Your task to perform on an android device: Show me popular videos on Youtube Image 0: 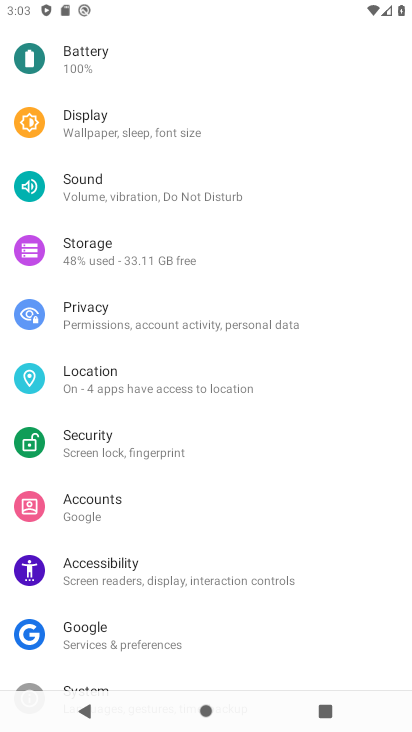
Step 0: press home button
Your task to perform on an android device: Show me popular videos on Youtube Image 1: 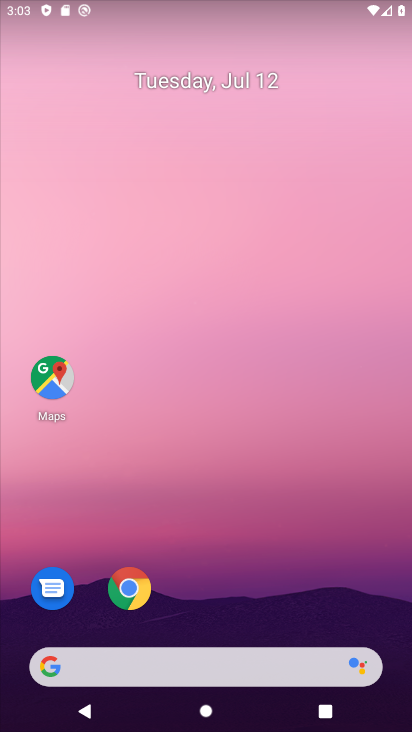
Step 1: drag from (310, 624) to (296, 262)
Your task to perform on an android device: Show me popular videos on Youtube Image 2: 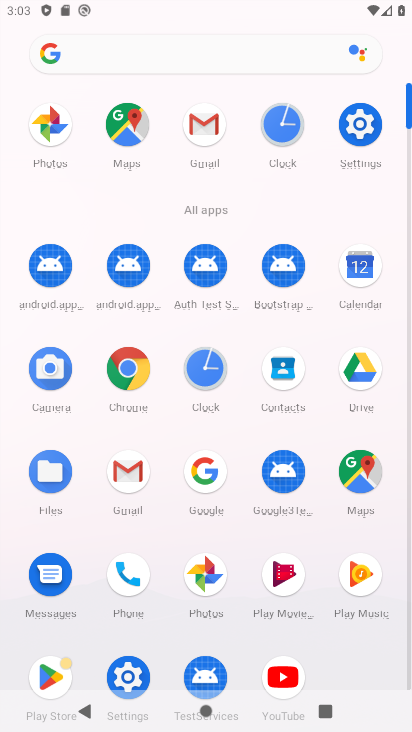
Step 2: click (281, 686)
Your task to perform on an android device: Show me popular videos on Youtube Image 3: 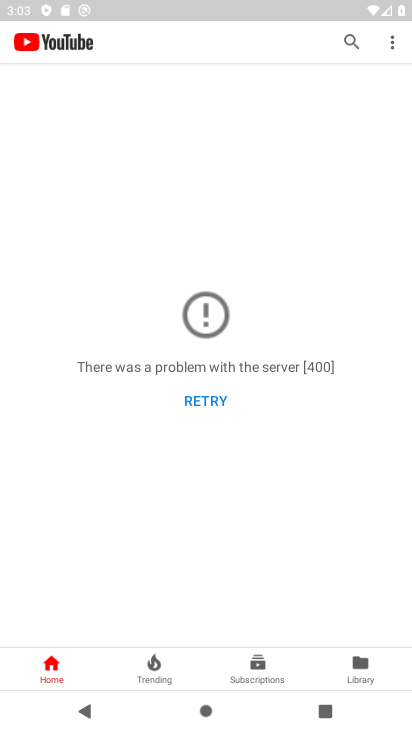
Step 3: click (151, 669)
Your task to perform on an android device: Show me popular videos on Youtube Image 4: 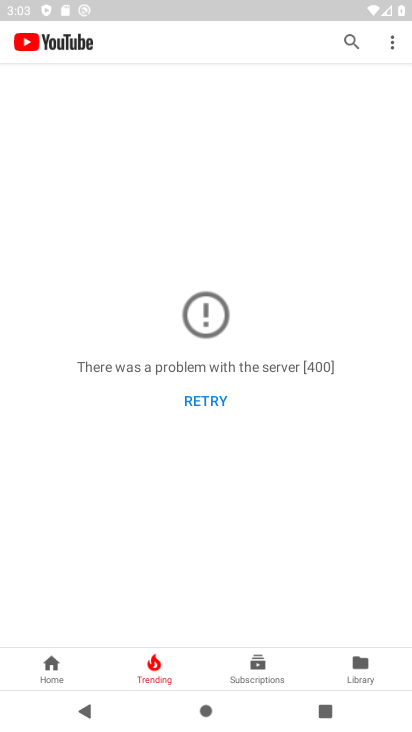
Step 4: task complete